Your task to perform on an android device: Open the stopwatch Image 0: 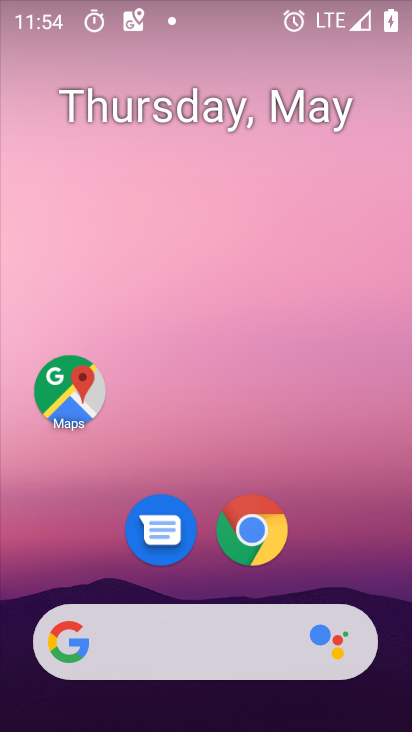
Step 0: drag from (238, 572) to (240, 212)
Your task to perform on an android device: Open the stopwatch Image 1: 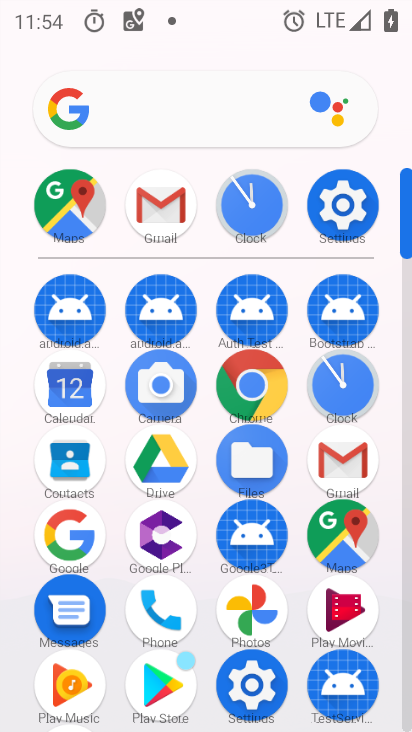
Step 1: drag from (340, 216) to (323, 336)
Your task to perform on an android device: Open the stopwatch Image 2: 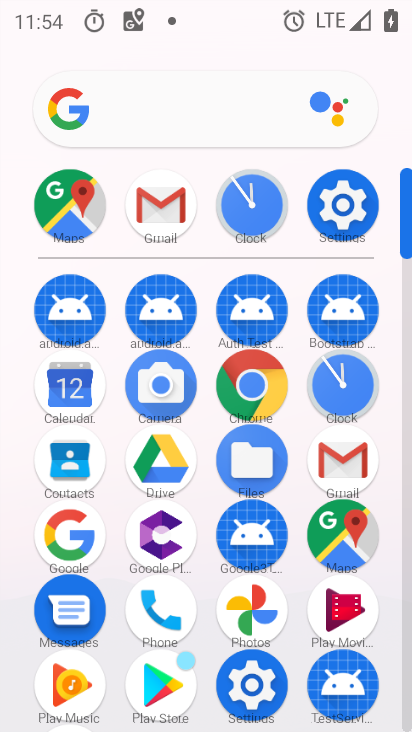
Step 2: click (322, 380)
Your task to perform on an android device: Open the stopwatch Image 3: 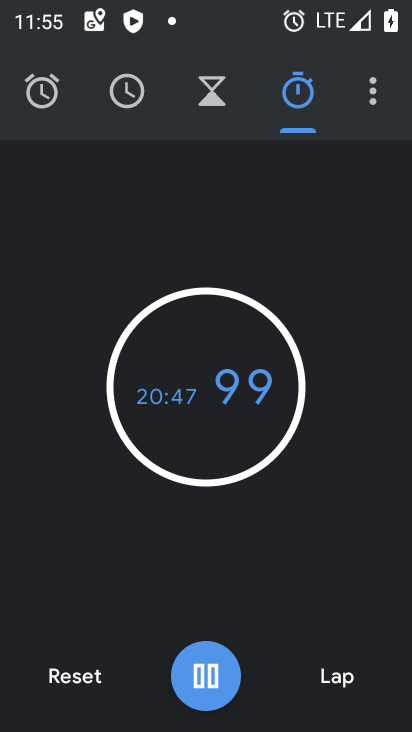
Step 3: task complete